Your task to perform on an android device: See recent photos Image 0: 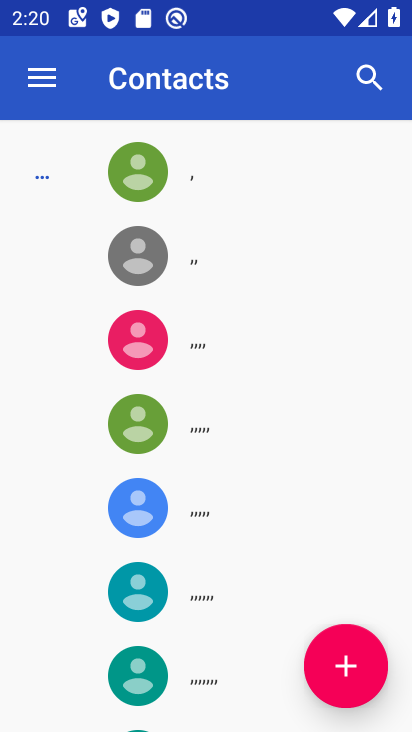
Step 0: press home button
Your task to perform on an android device: See recent photos Image 1: 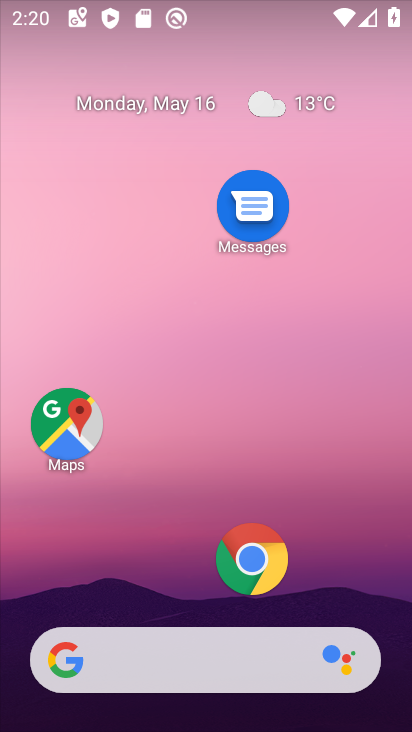
Step 1: drag from (168, 595) to (192, 201)
Your task to perform on an android device: See recent photos Image 2: 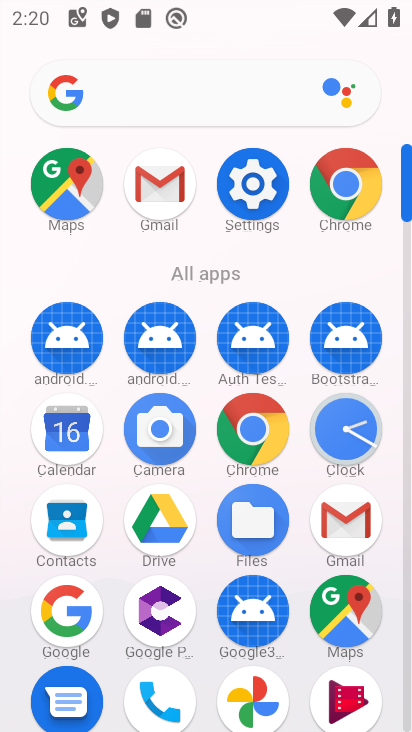
Step 2: click (259, 679)
Your task to perform on an android device: See recent photos Image 3: 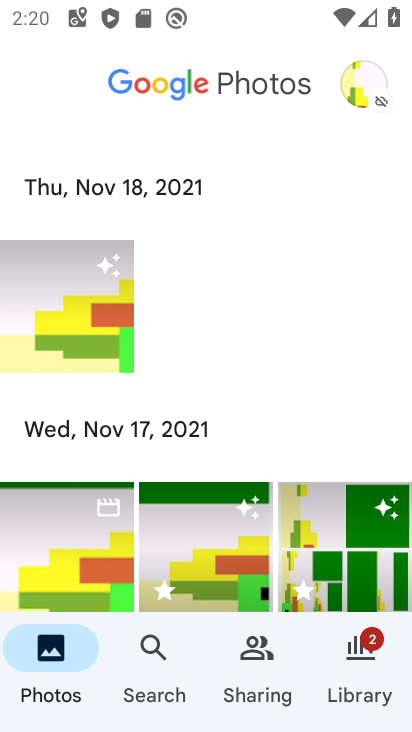
Step 3: task complete